Your task to perform on an android device: turn vacation reply on in the gmail app Image 0: 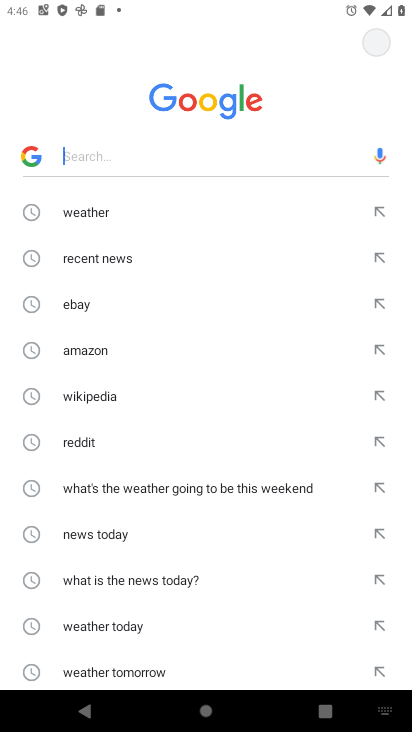
Step 0: press home button
Your task to perform on an android device: turn vacation reply on in the gmail app Image 1: 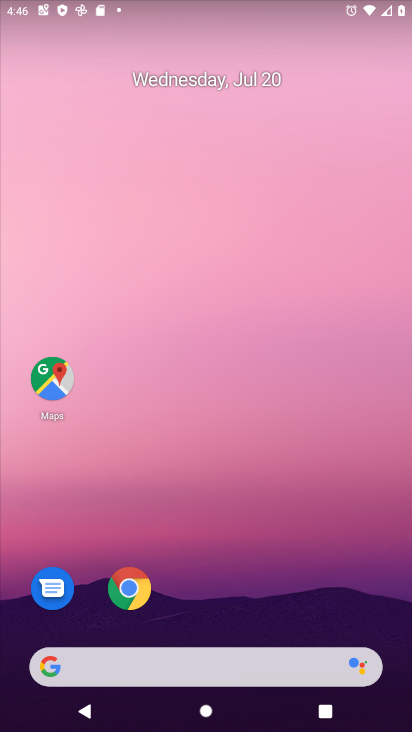
Step 1: drag from (275, 605) to (264, 69)
Your task to perform on an android device: turn vacation reply on in the gmail app Image 2: 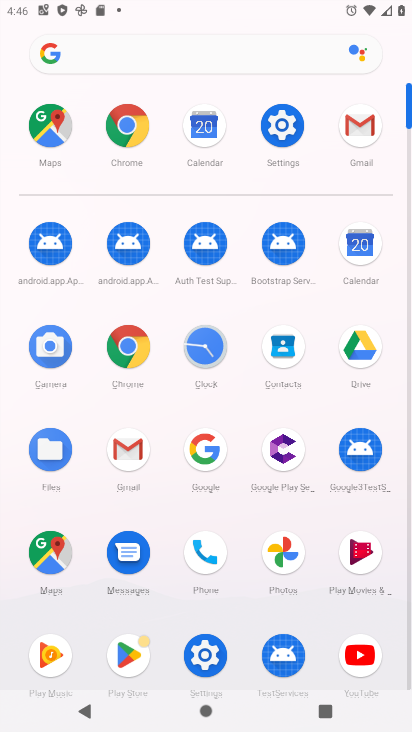
Step 2: click (360, 134)
Your task to perform on an android device: turn vacation reply on in the gmail app Image 3: 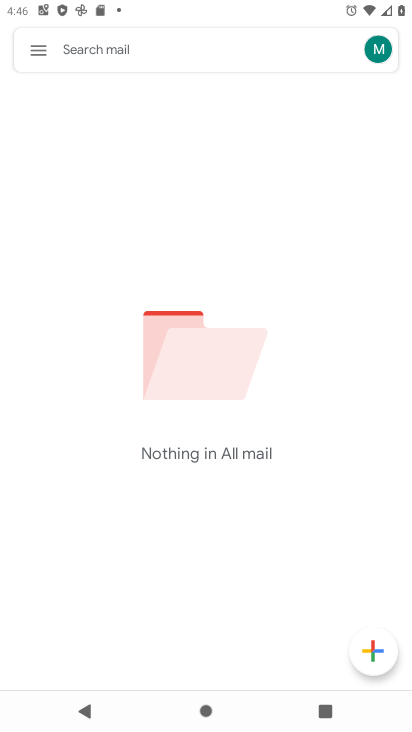
Step 3: click (45, 46)
Your task to perform on an android device: turn vacation reply on in the gmail app Image 4: 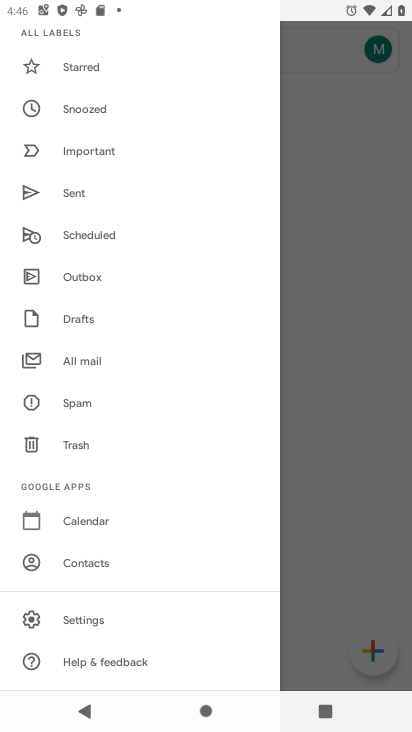
Step 4: click (94, 622)
Your task to perform on an android device: turn vacation reply on in the gmail app Image 5: 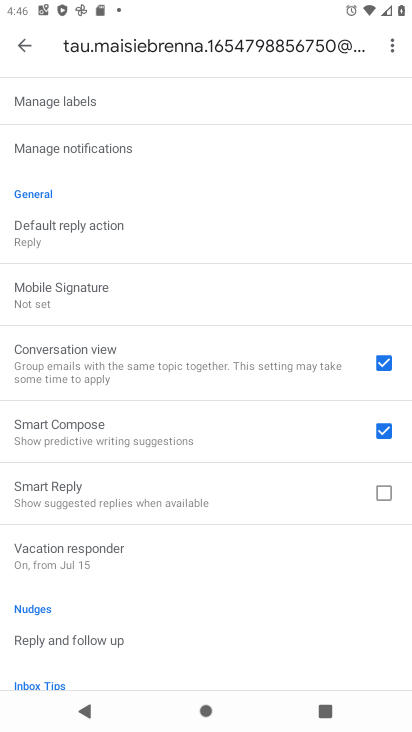
Step 5: click (94, 551)
Your task to perform on an android device: turn vacation reply on in the gmail app Image 6: 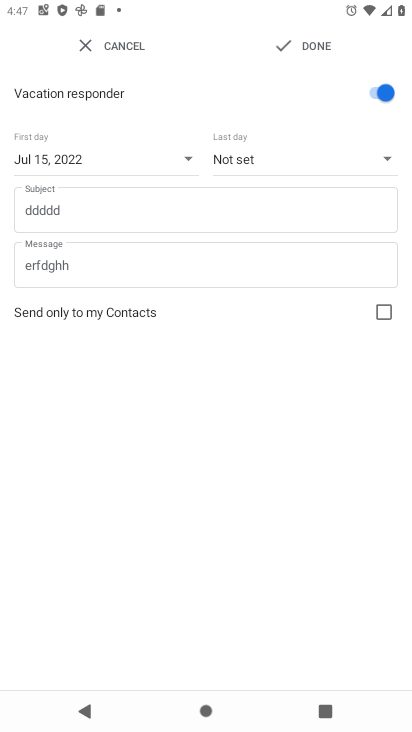
Step 6: task complete